Your task to perform on an android device: Go to Reddit.com Image 0: 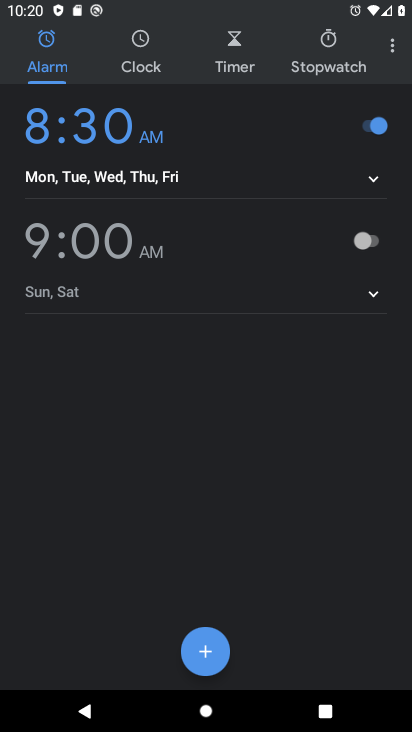
Step 0: press back button
Your task to perform on an android device: Go to Reddit.com Image 1: 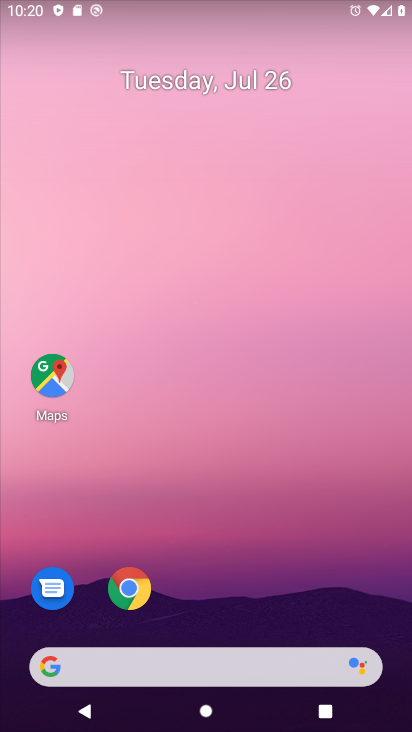
Step 1: click (133, 583)
Your task to perform on an android device: Go to Reddit.com Image 2: 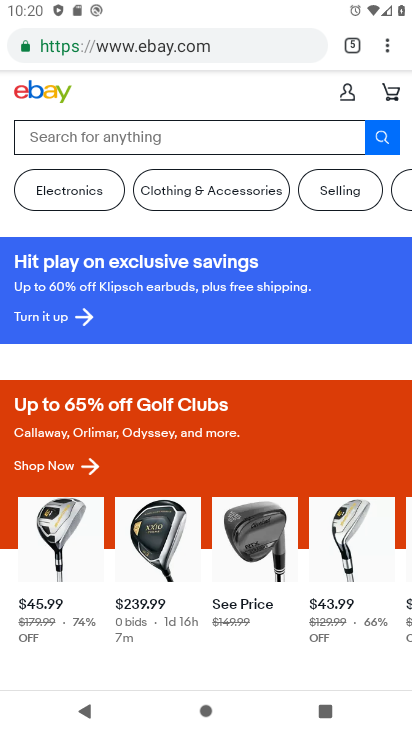
Step 2: click (354, 44)
Your task to perform on an android device: Go to Reddit.com Image 3: 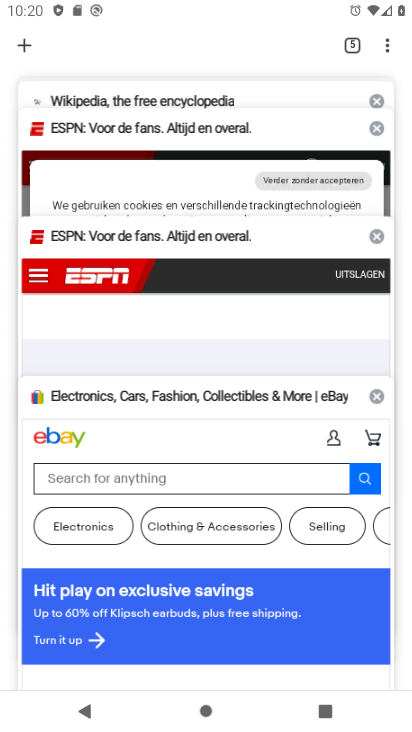
Step 3: click (25, 44)
Your task to perform on an android device: Go to Reddit.com Image 4: 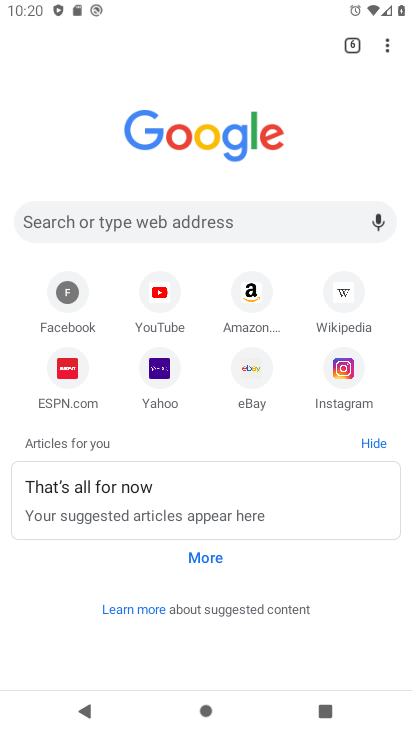
Step 4: click (172, 224)
Your task to perform on an android device: Go to Reddit.com Image 5: 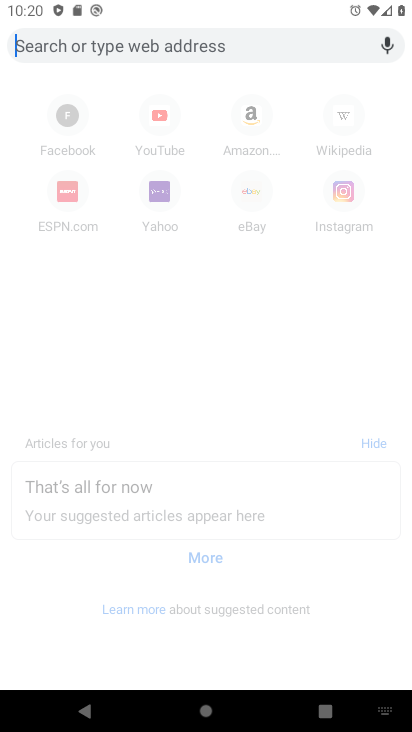
Step 5: type "reddit.com"
Your task to perform on an android device: Go to Reddit.com Image 6: 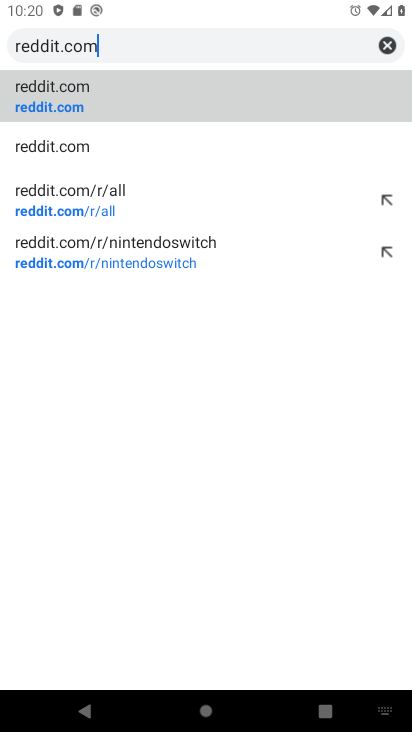
Step 6: click (71, 92)
Your task to perform on an android device: Go to Reddit.com Image 7: 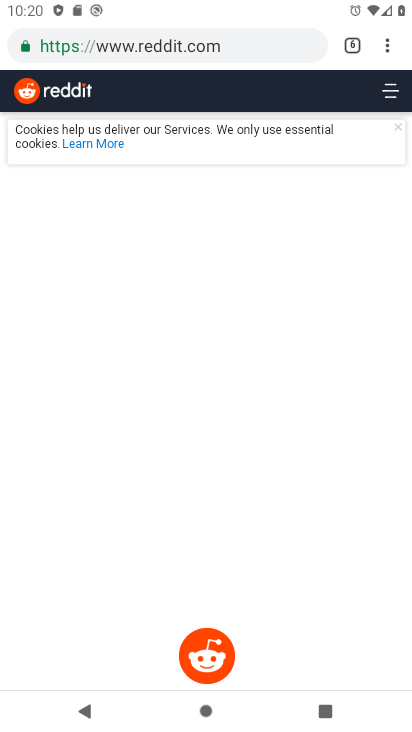
Step 7: task complete